Your task to perform on an android device: turn smart compose on in the gmail app Image 0: 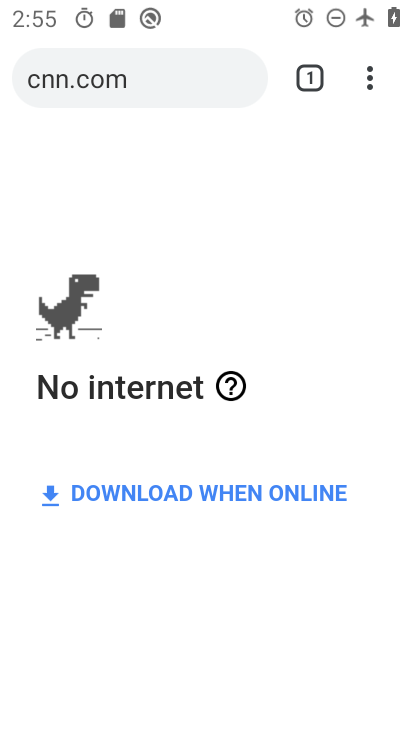
Step 0: press home button
Your task to perform on an android device: turn smart compose on in the gmail app Image 1: 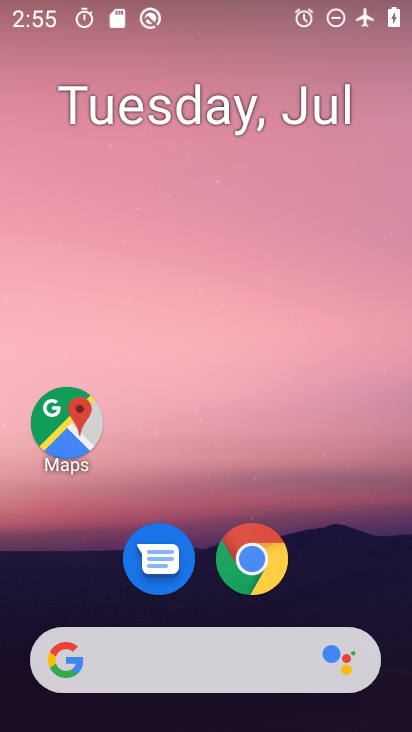
Step 1: drag from (338, 576) to (368, 148)
Your task to perform on an android device: turn smart compose on in the gmail app Image 2: 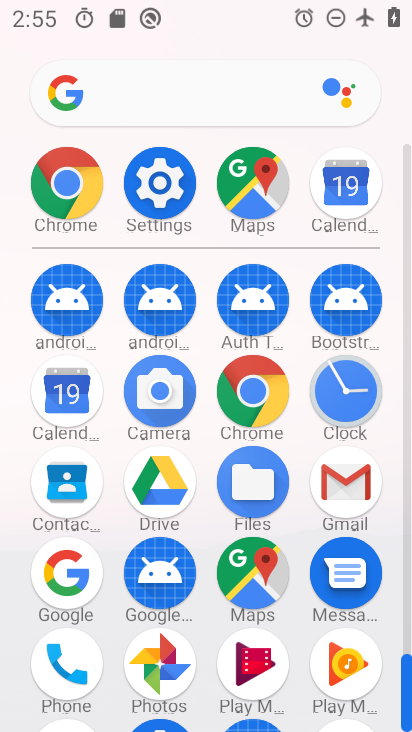
Step 2: click (359, 483)
Your task to perform on an android device: turn smart compose on in the gmail app Image 3: 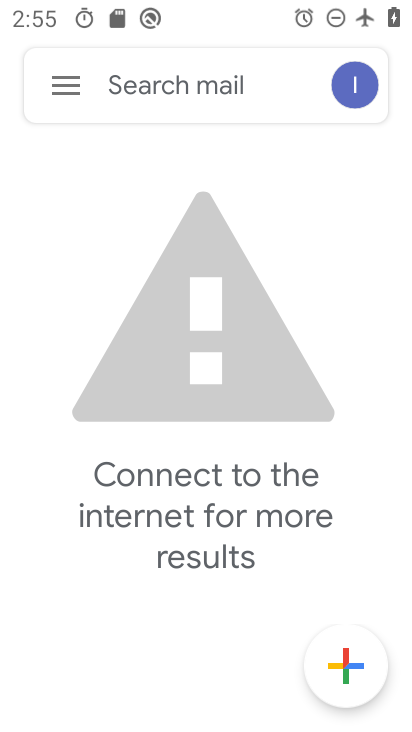
Step 3: click (64, 75)
Your task to perform on an android device: turn smart compose on in the gmail app Image 4: 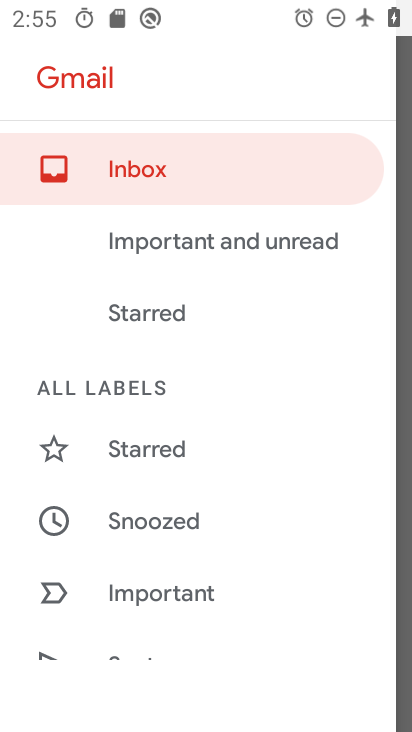
Step 4: drag from (283, 483) to (298, 412)
Your task to perform on an android device: turn smart compose on in the gmail app Image 5: 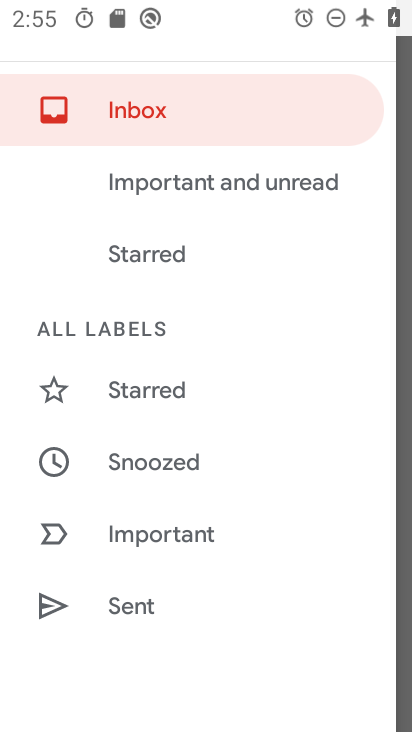
Step 5: drag from (309, 550) to (319, 481)
Your task to perform on an android device: turn smart compose on in the gmail app Image 6: 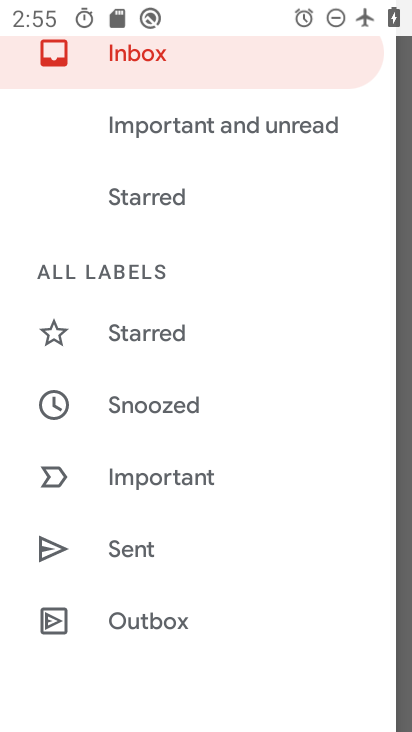
Step 6: drag from (319, 530) to (323, 446)
Your task to perform on an android device: turn smart compose on in the gmail app Image 7: 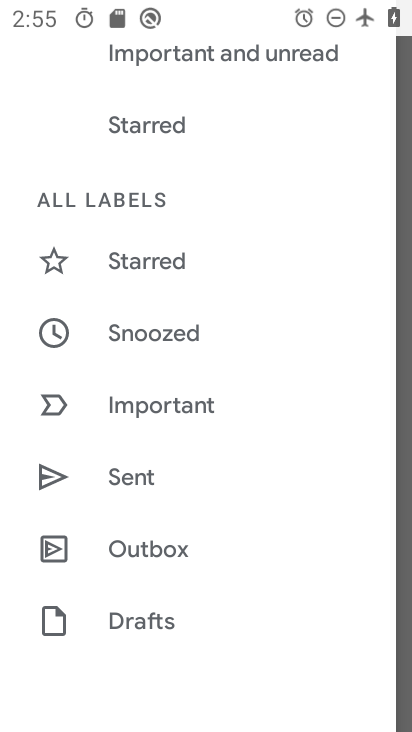
Step 7: drag from (253, 537) to (261, 452)
Your task to perform on an android device: turn smart compose on in the gmail app Image 8: 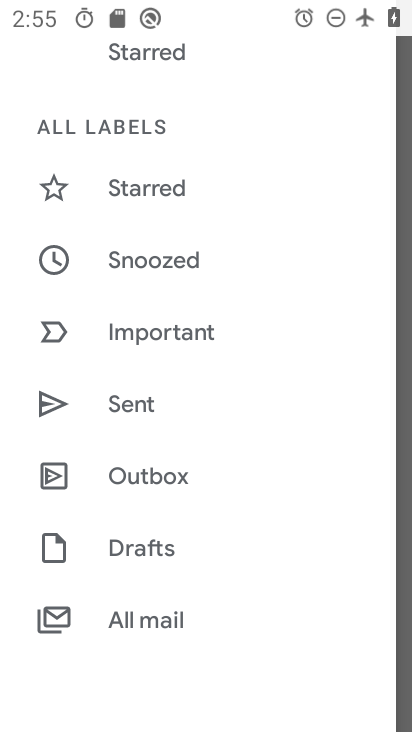
Step 8: drag from (269, 540) to (313, 64)
Your task to perform on an android device: turn smart compose on in the gmail app Image 9: 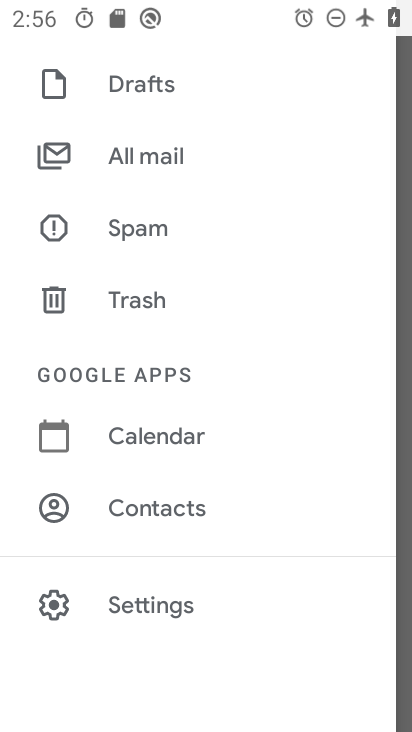
Step 9: click (173, 608)
Your task to perform on an android device: turn smart compose on in the gmail app Image 10: 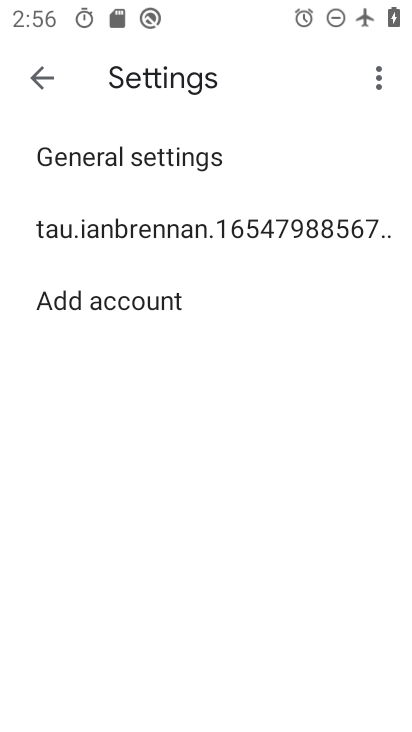
Step 10: click (224, 232)
Your task to perform on an android device: turn smart compose on in the gmail app Image 11: 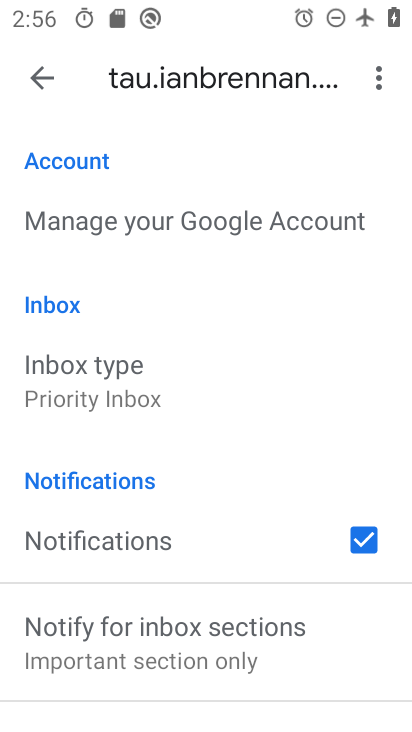
Step 11: drag from (252, 519) to (265, 425)
Your task to perform on an android device: turn smart compose on in the gmail app Image 12: 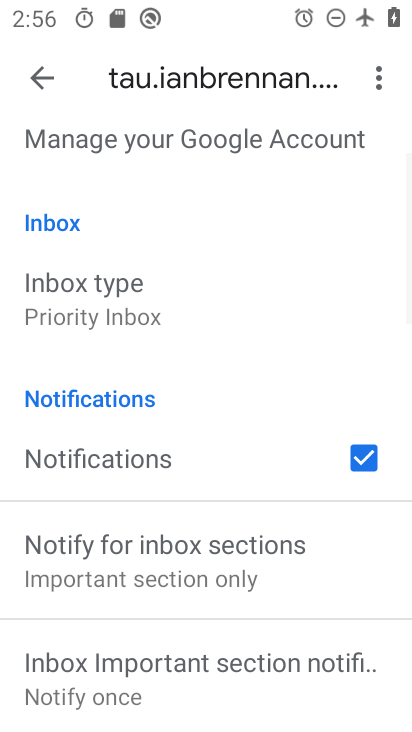
Step 12: drag from (278, 567) to (280, 427)
Your task to perform on an android device: turn smart compose on in the gmail app Image 13: 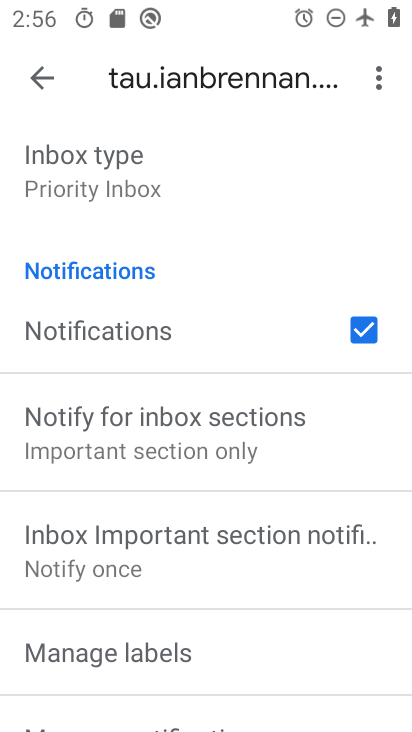
Step 13: drag from (283, 490) to (281, 252)
Your task to perform on an android device: turn smart compose on in the gmail app Image 14: 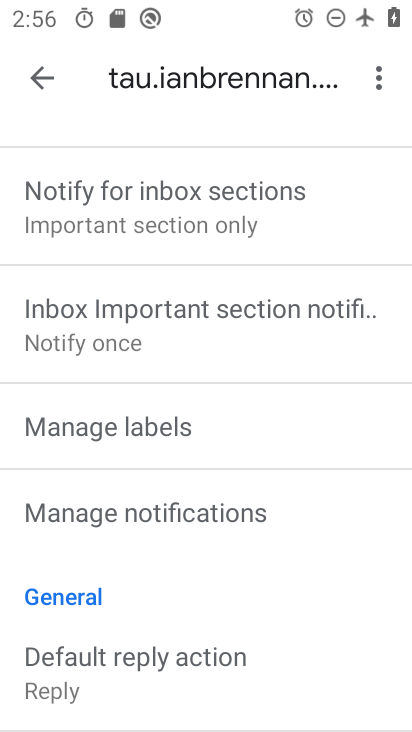
Step 14: click (312, 396)
Your task to perform on an android device: turn smart compose on in the gmail app Image 15: 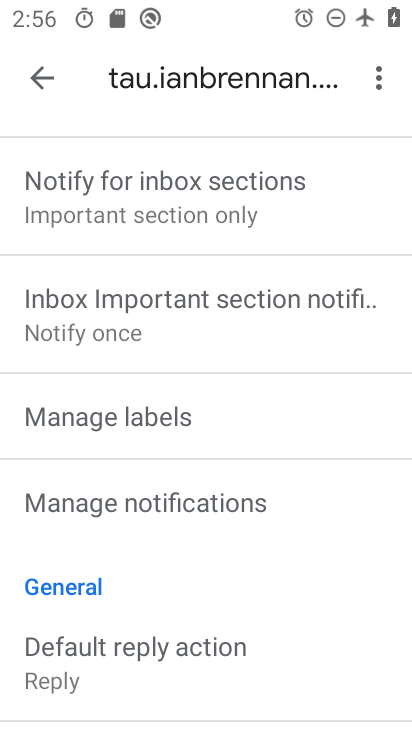
Step 15: task complete